Your task to perform on an android device: Go to ESPN.com Image 0: 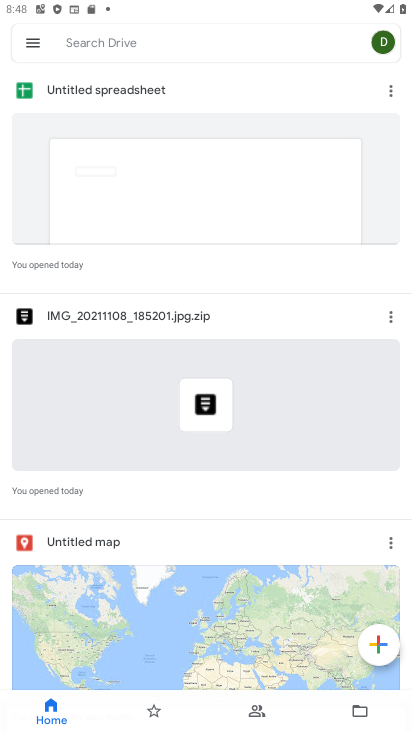
Step 0: press home button
Your task to perform on an android device: Go to ESPN.com Image 1: 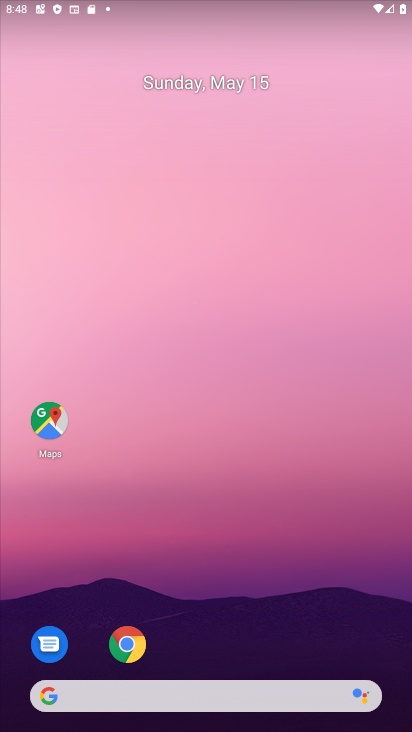
Step 1: click (140, 646)
Your task to perform on an android device: Go to ESPN.com Image 2: 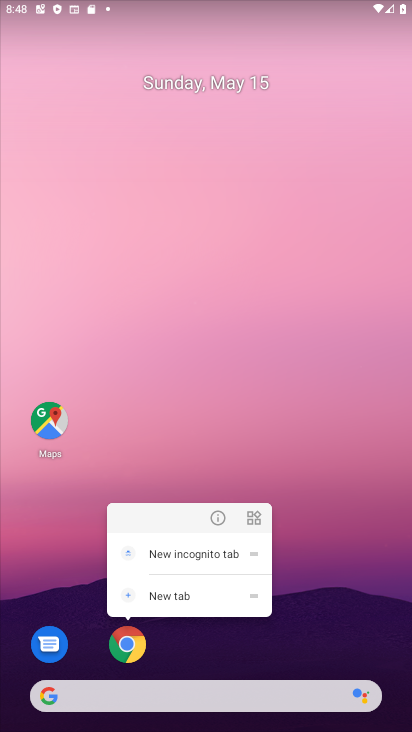
Step 2: click (127, 649)
Your task to perform on an android device: Go to ESPN.com Image 3: 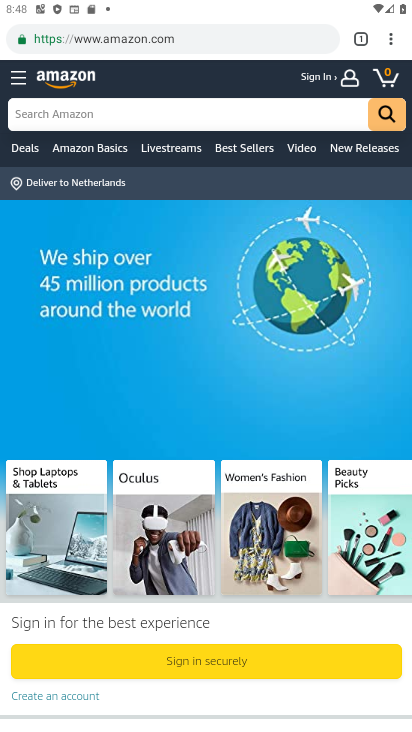
Step 3: click (356, 34)
Your task to perform on an android device: Go to ESPN.com Image 4: 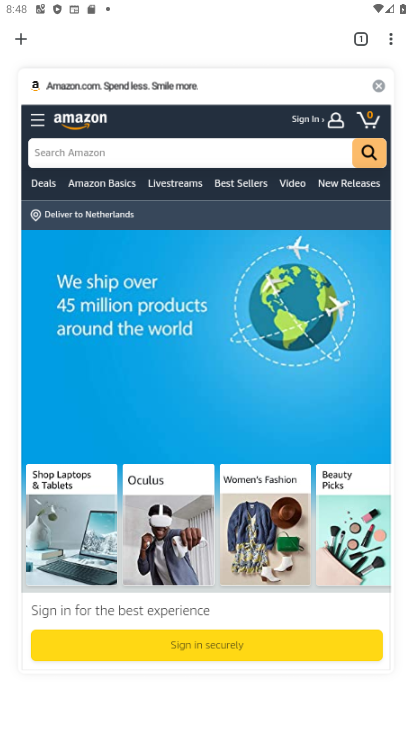
Step 4: click (26, 37)
Your task to perform on an android device: Go to ESPN.com Image 5: 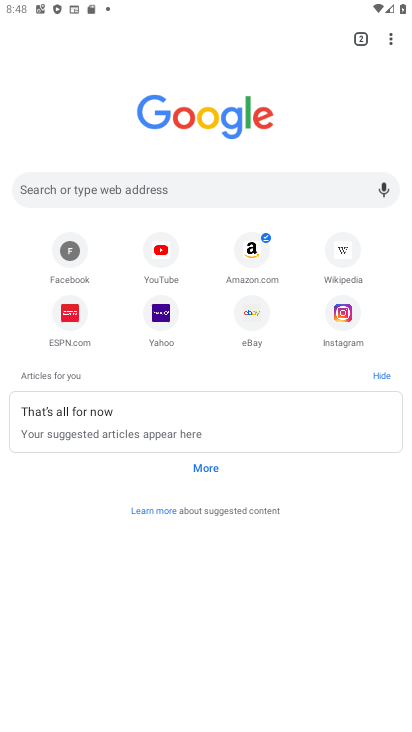
Step 5: click (65, 315)
Your task to perform on an android device: Go to ESPN.com Image 6: 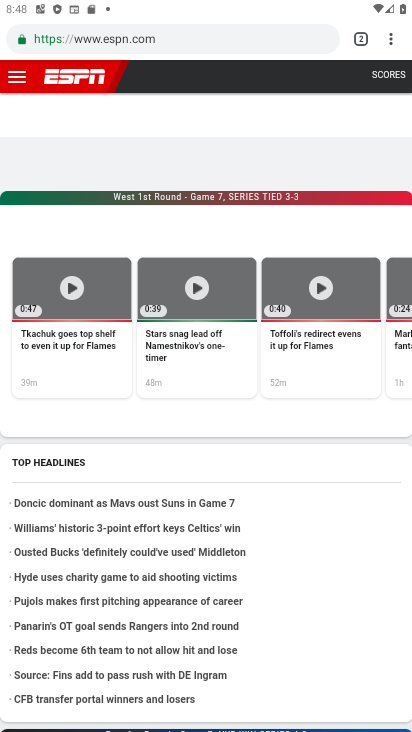
Step 6: task complete